Your task to perform on an android device: Open ESPN.com Image 0: 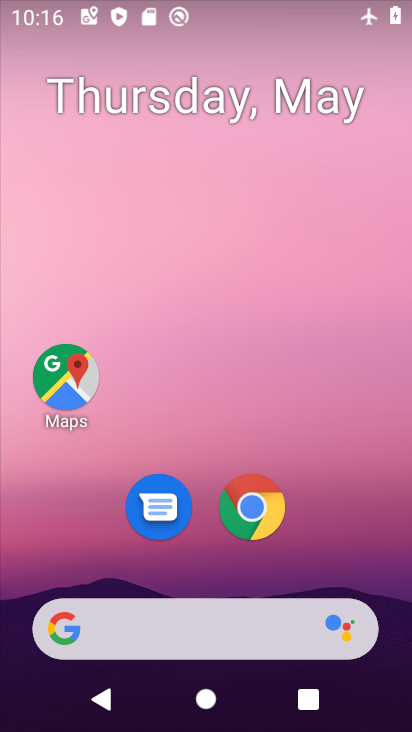
Step 0: click (250, 523)
Your task to perform on an android device: Open ESPN.com Image 1: 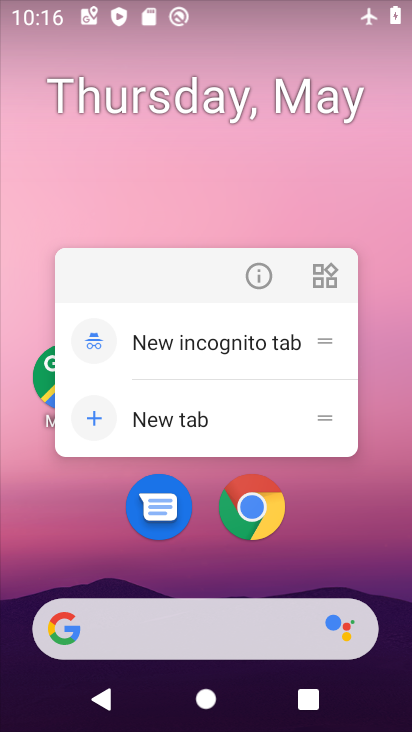
Step 1: click (260, 530)
Your task to perform on an android device: Open ESPN.com Image 2: 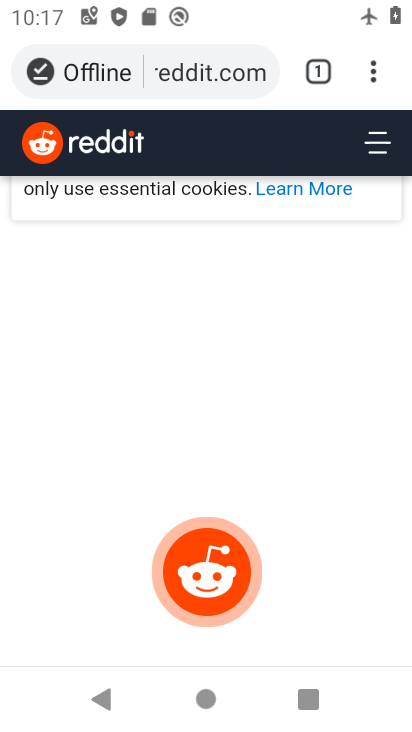
Step 2: click (254, 82)
Your task to perform on an android device: Open ESPN.com Image 3: 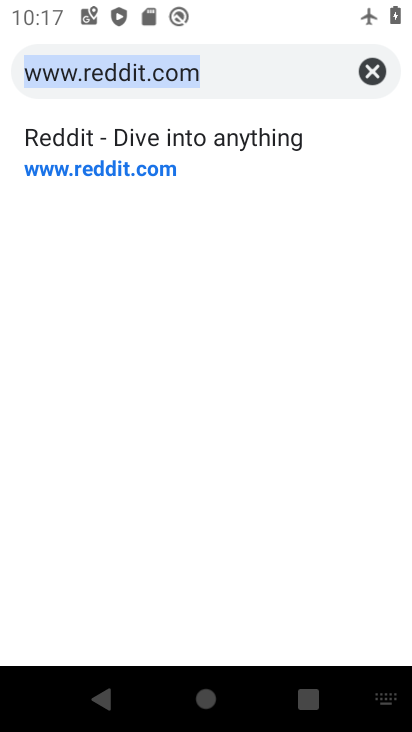
Step 3: type "espn.com"
Your task to perform on an android device: Open ESPN.com Image 4: 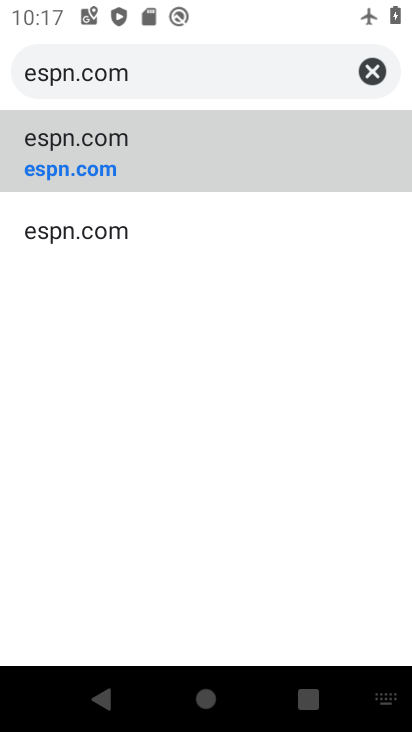
Step 4: click (139, 170)
Your task to perform on an android device: Open ESPN.com Image 5: 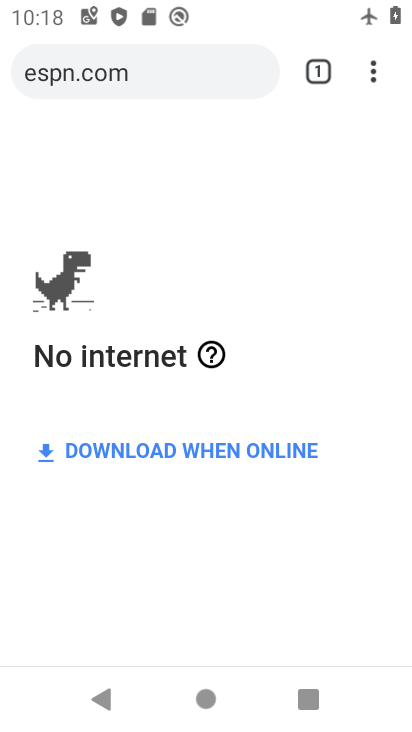
Step 5: task complete